Your task to perform on an android device: toggle pop-ups in chrome Image 0: 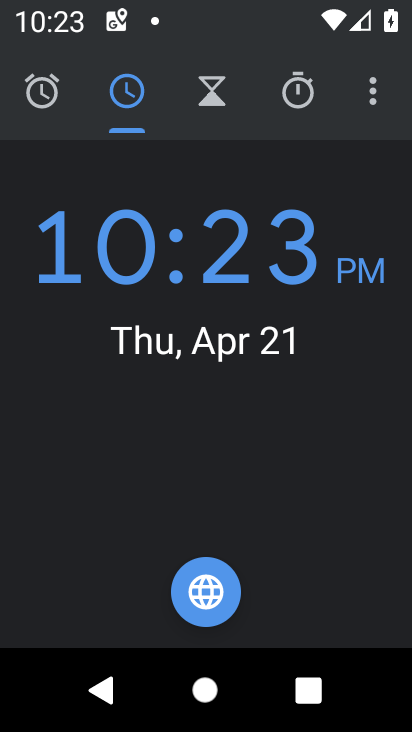
Step 0: press home button
Your task to perform on an android device: toggle pop-ups in chrome Image 1: 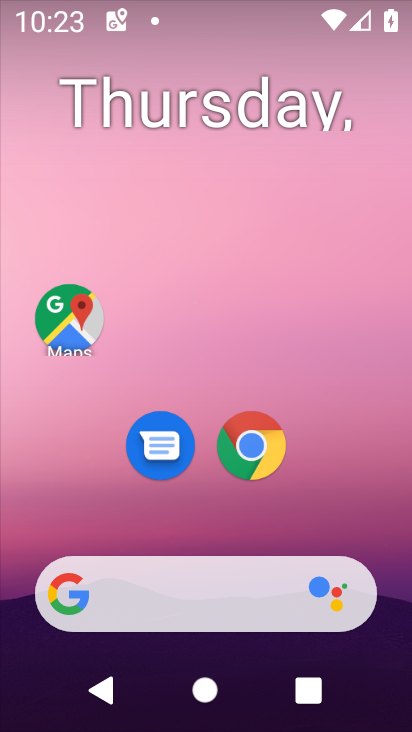
Step 1: drag from (389, 593) to (271, 53)
Your task to perform on an android device: toggle pop-ups in chrome Image 2: 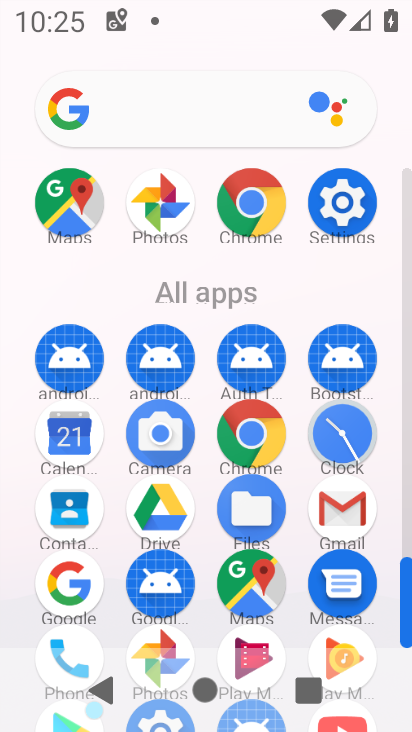
Step 2: click (247, 185)
Your task to perform on an android device: toggle pop-ups in chrome Image 3: 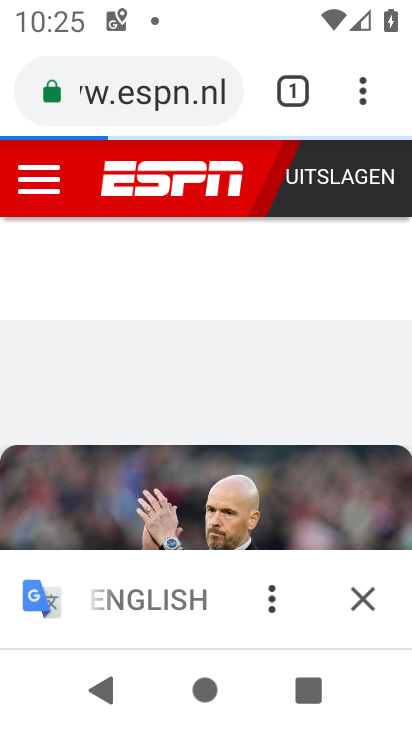
Step 3: press back button
Your task to perform on an android device: toggle pop-ups in chrome Image 4: 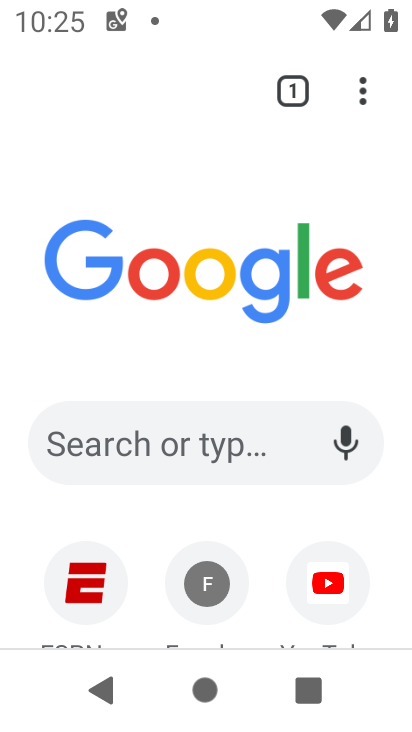
Step 4: click (356, 86)
Your task to perform on an android device: toggle pop-ups in chrome Image 5: 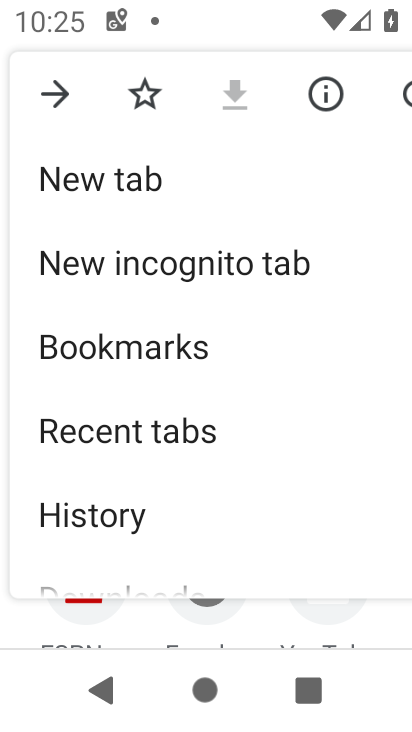
Step 5: drag from (169, 568) to (201, 105)
Your task to perform on an android device: toggle pop-ups in chrome Image 6: 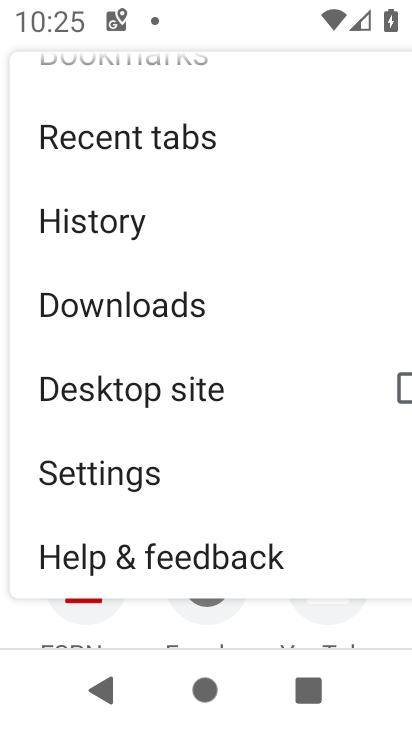
Step 6: drag from (150, 519) to (210, 99)
Your task to perform on an android device: toggle pop-ups in chrome Image 7: 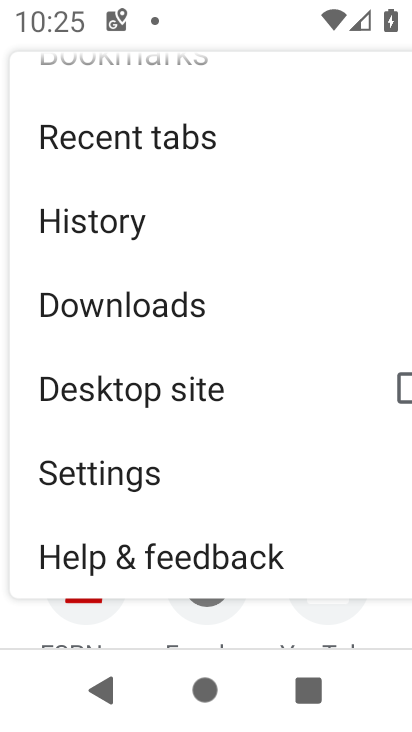
Step 7: click (172, 479)
Your task to perform on an android device: toggle pop-ups in chrome Image 8: 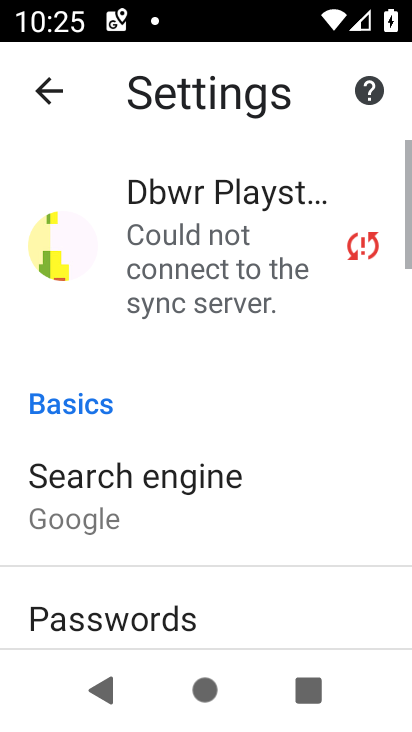
Step 8: drag from (185, 567) to (206, 136)
Your task to perform on an android device: toggle pop-ups in chrome Image 9: 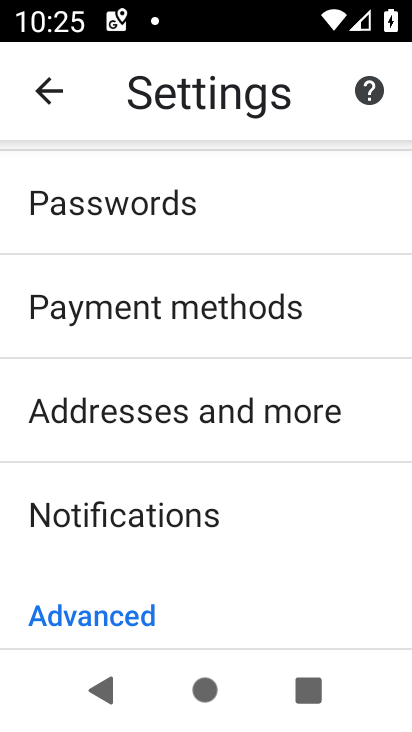
Step 9: drag from (156, 572) to (219, 215)
Your task to perform on an android device: toggle pop-ups in chrome Image 10: 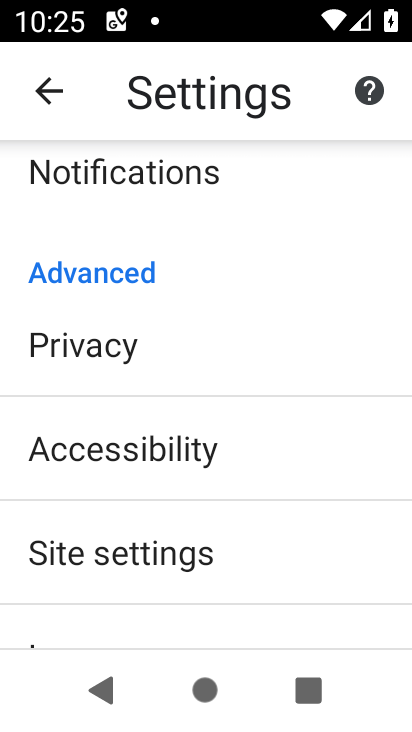
Step 10: click (169, 547)
Your task to perform on an android device: toggle pop-ups in chrome Image 11: 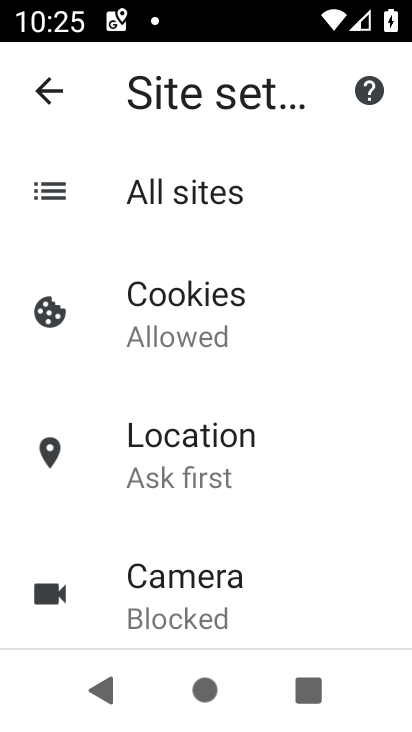
Step 11: drag from (251, 586) to (245, 198)
Your task to perform on an android device: toggle pop-ups in chrome Image 12: 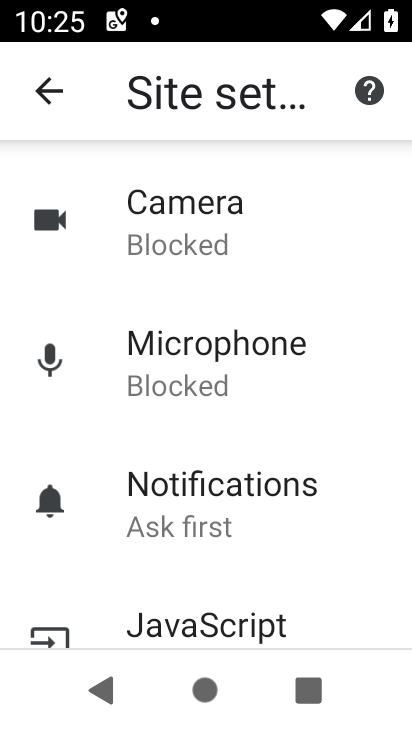
Step 12: drag from (248, 546) to (258, 199)
Your task to perform on an android device: toggle pop-ups in chrome Image 13: 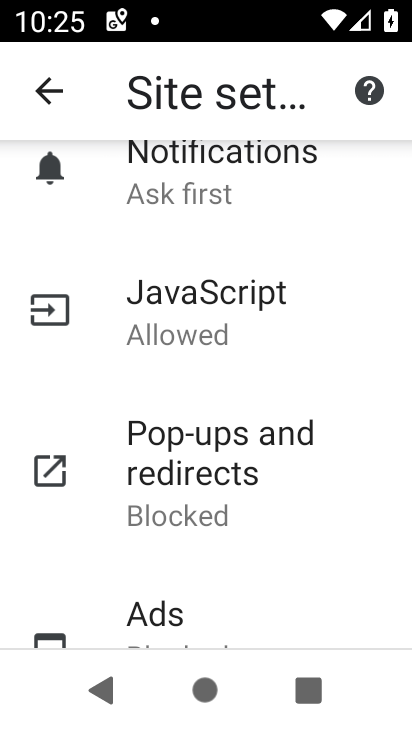
Step 13: click (283, 455)
Your task to perform on an android device: toggle pop-ups in chrome Image 14: 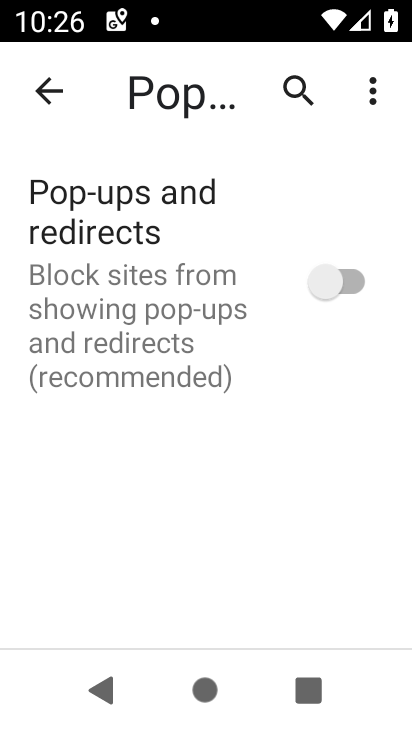
Step 14: click (306, 302)
Your task to perform on an android device: toggle pop-ups in chrome Image 15: 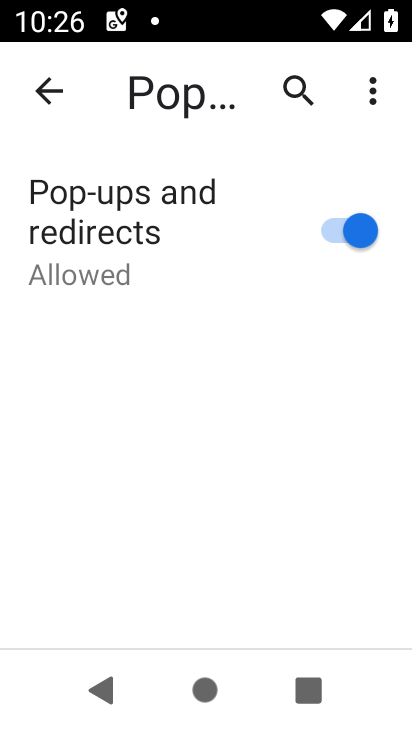
Step 15: task complete